Your task to perform on an android device: turn on priority inbox in the gmail app Image 0: 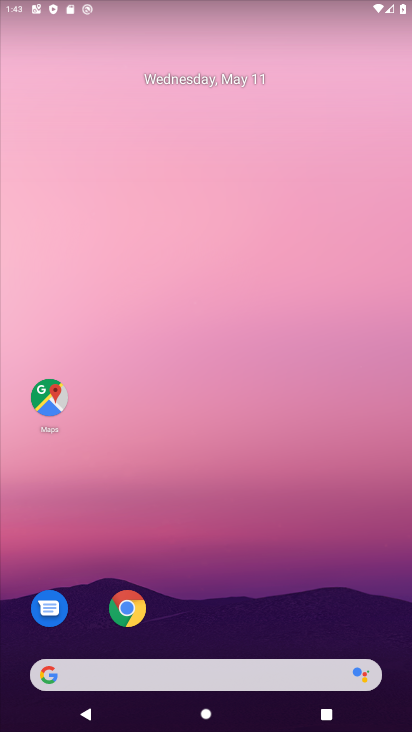
Step 0: drag from (254, 519) to (235, 249)
Your task to perform on an android device: turn on priority inbox in the gmail app Image 1: 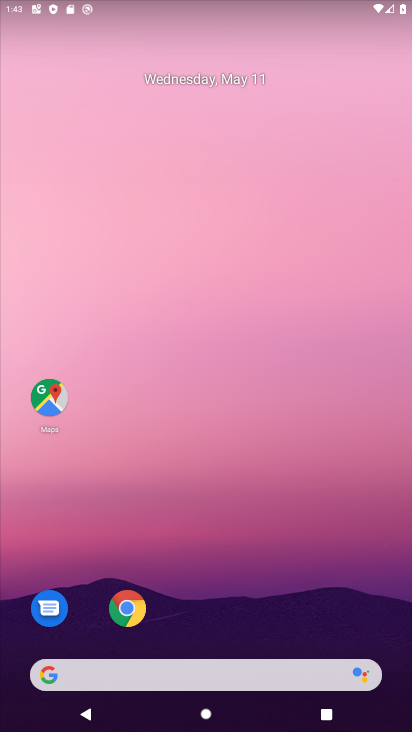
Step 1: drag from (236, 713) to (258, 71)
Your task to perform on an android device: turn on priority inbox in the gmail app Image 2: 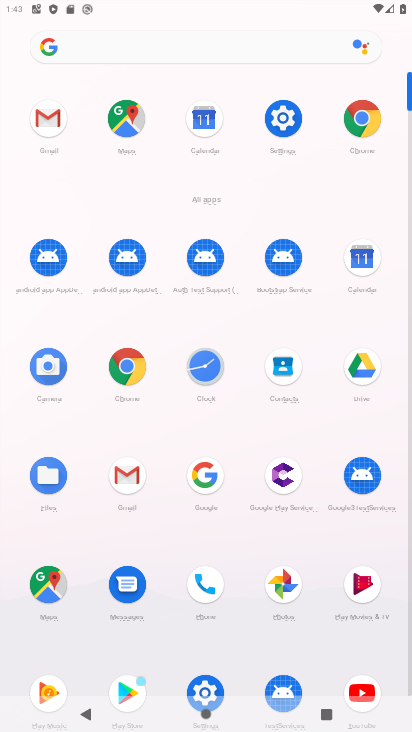
Step 2: click (45, 127)
Your task to perform on an android device: turn on priority inbox in the gmail app Image 3: 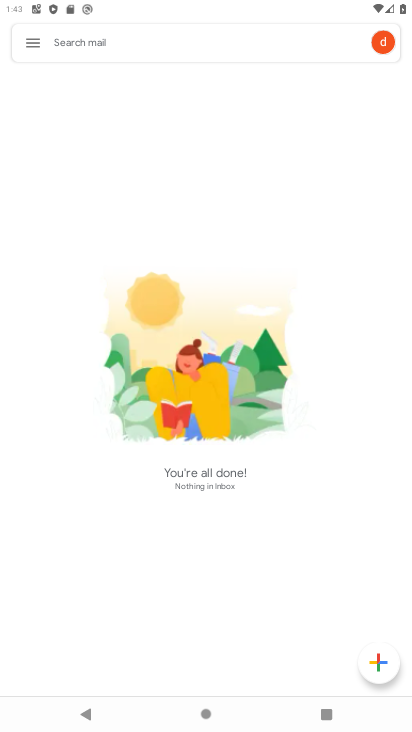
Step 3: click (31, 46)
Your task to perform on an android device: turn on priority inbox in the gmail app Image 4: 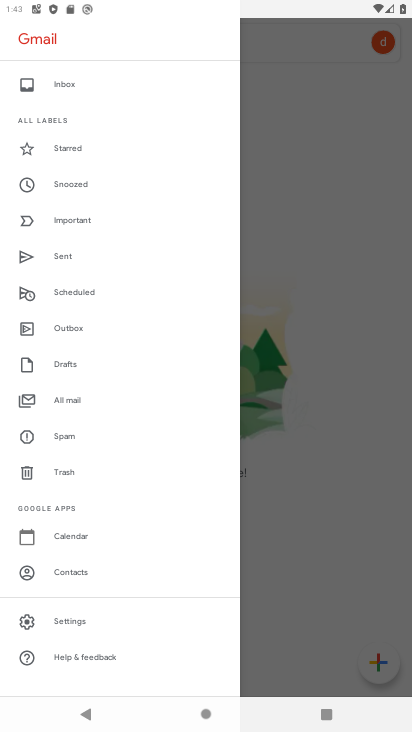
Step 4: click (63, 619)
Your task to perform on an android device: turn on priority inbox in the gmail app Image 5: 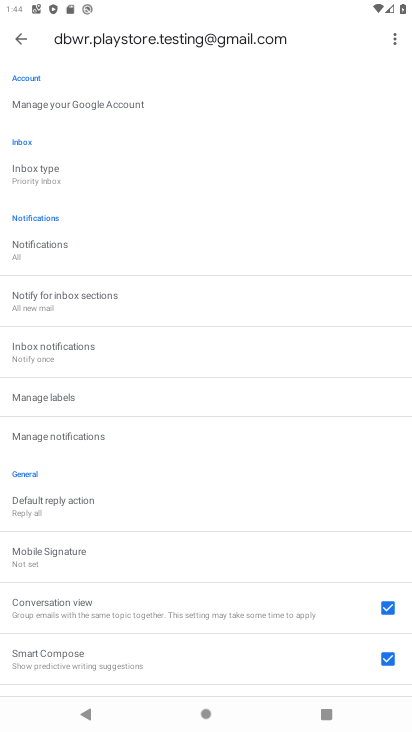
Step 5: task complete